Your task to perform on an android device: turn on airplane mode Image 0: 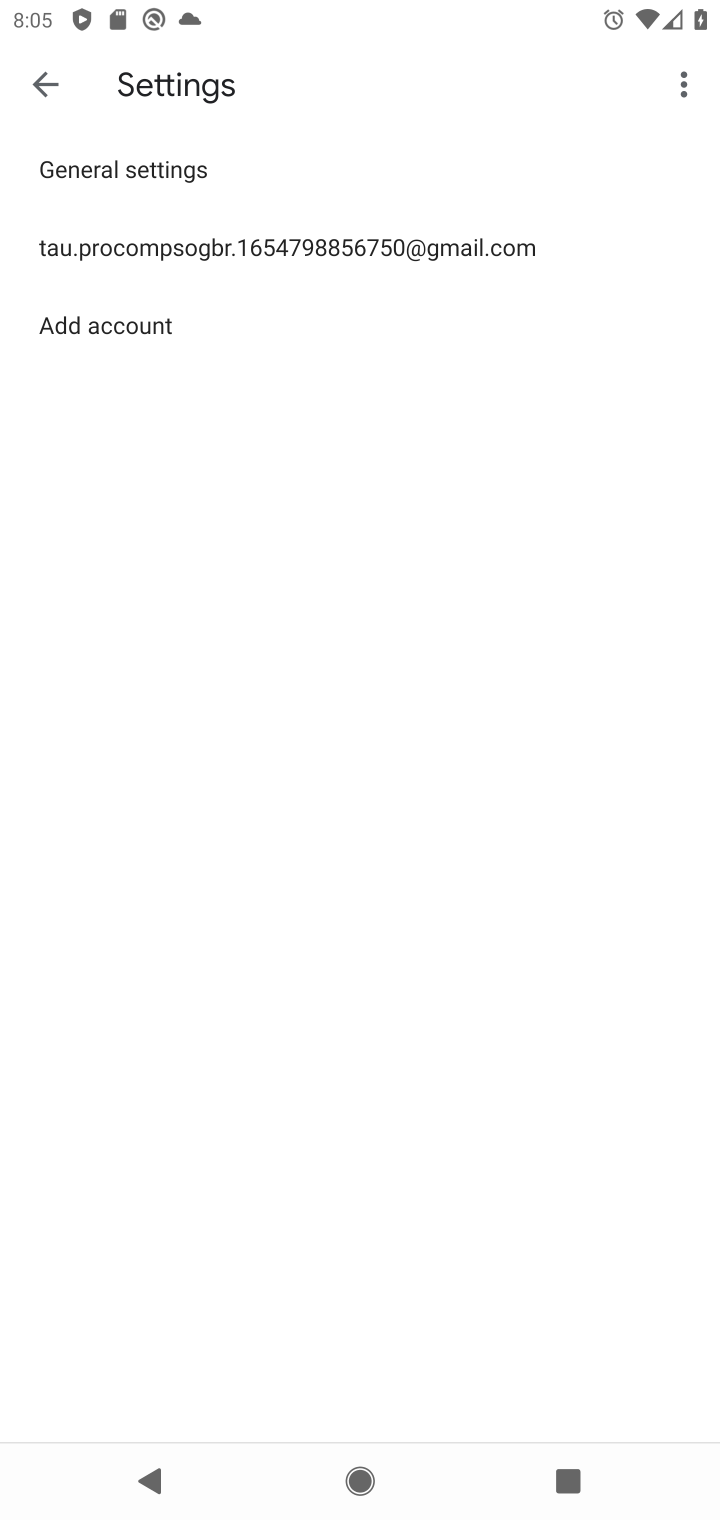
Step 0: press home button
Your task to perform on an android device: turn on airplane mode Image 1: 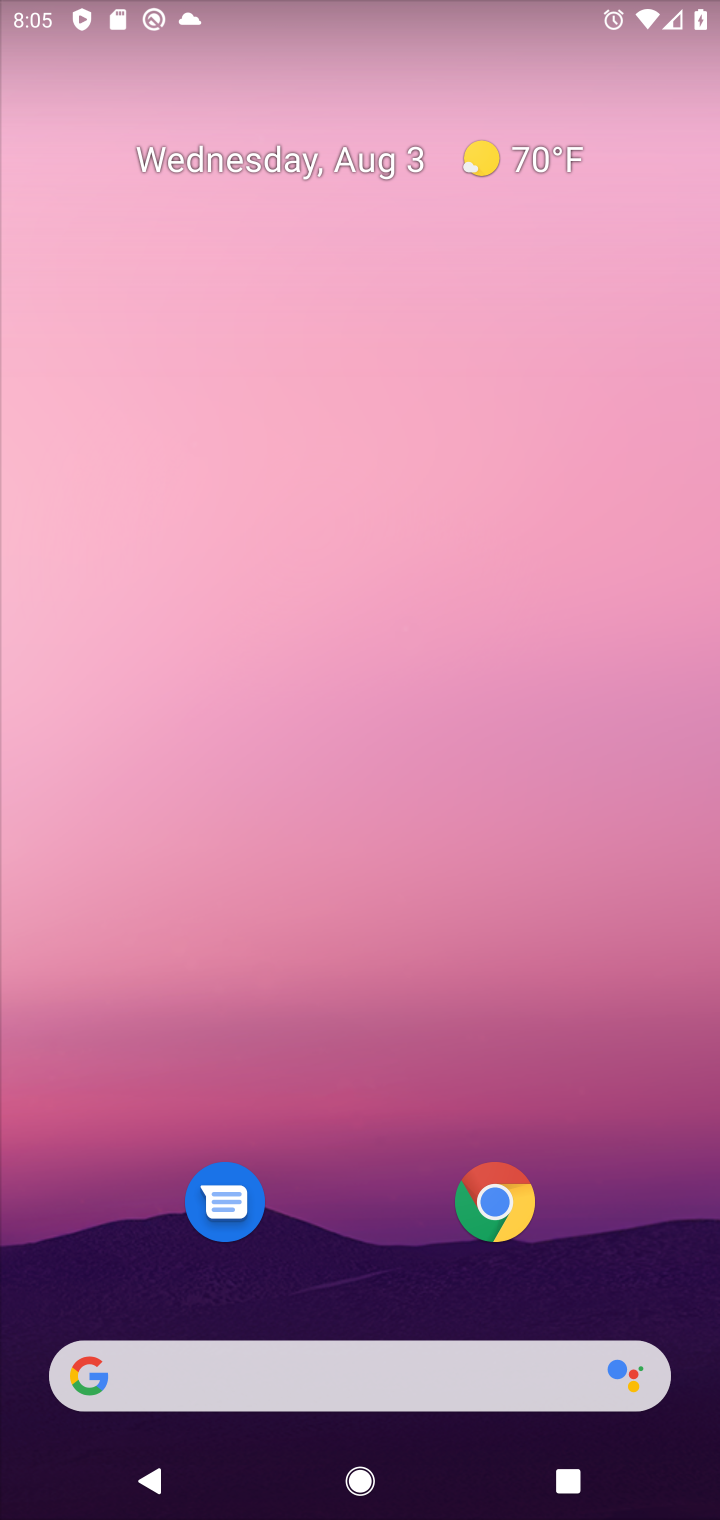
Step 1: drag from (359, 1372) to (274, 447)
Your task to perform on an android device: turn on airplane mode Image 2: 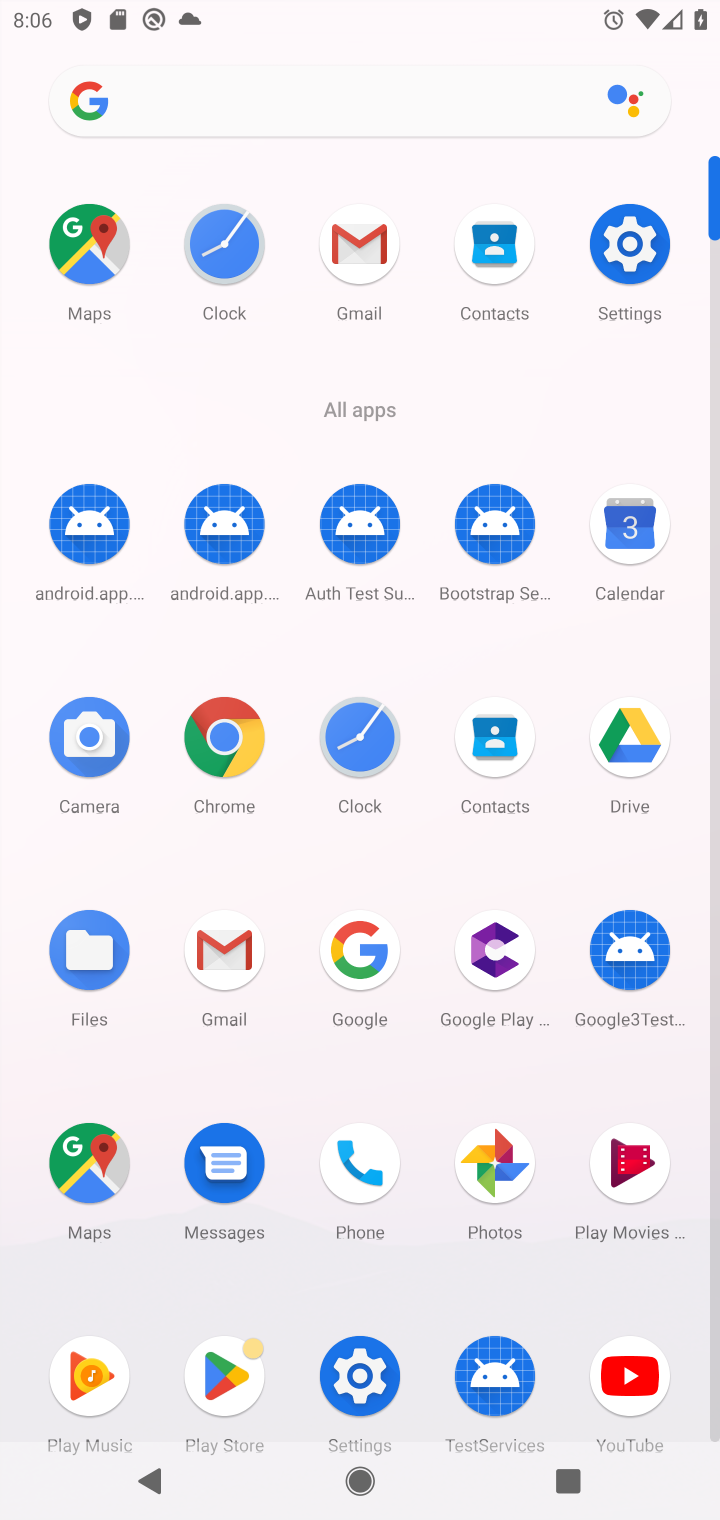
Step 2: click (359, 1383)
Your task to perform on an android device: turn on airplane mode Image 3: 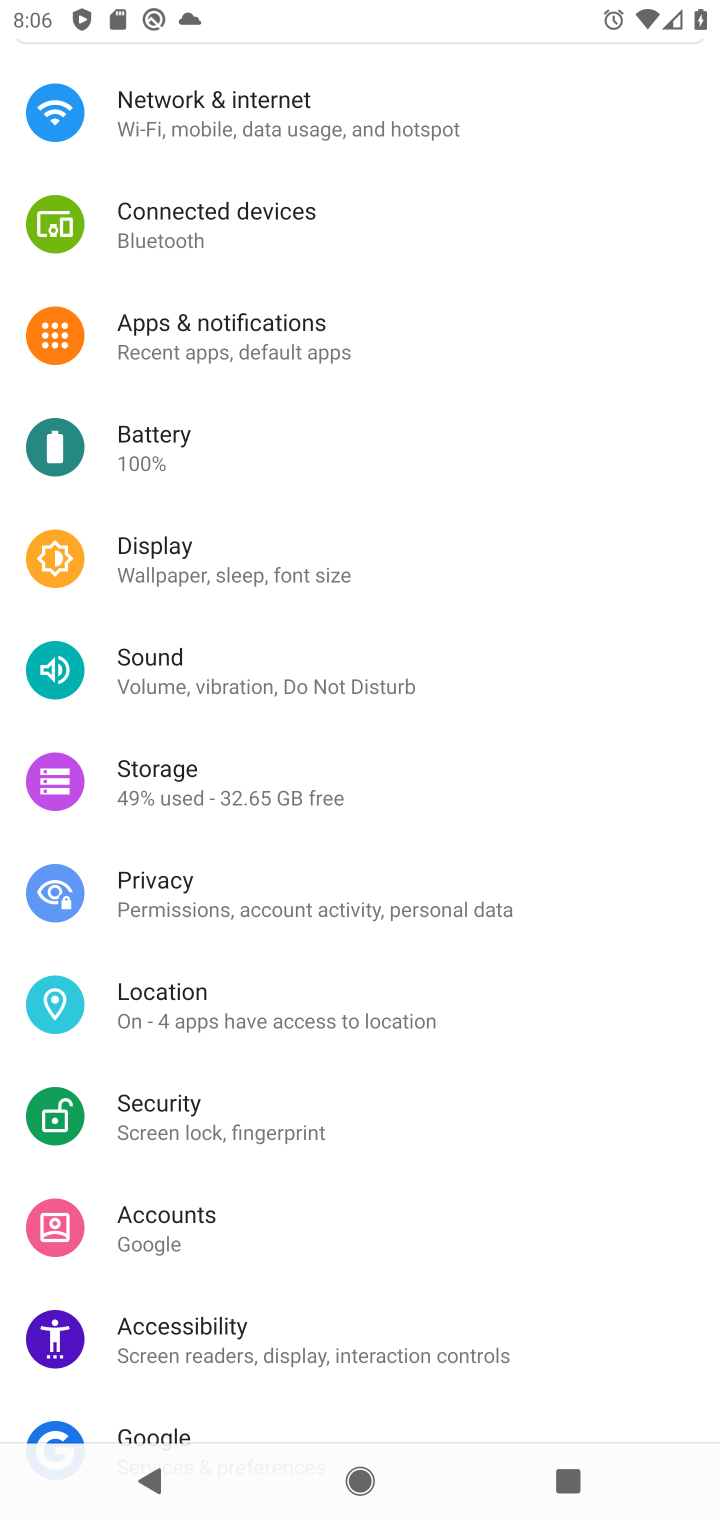
Step 3: drag from (425, 405) to (420, 661)
Your task to perform on an android device: turn on airplane mode Image 4: 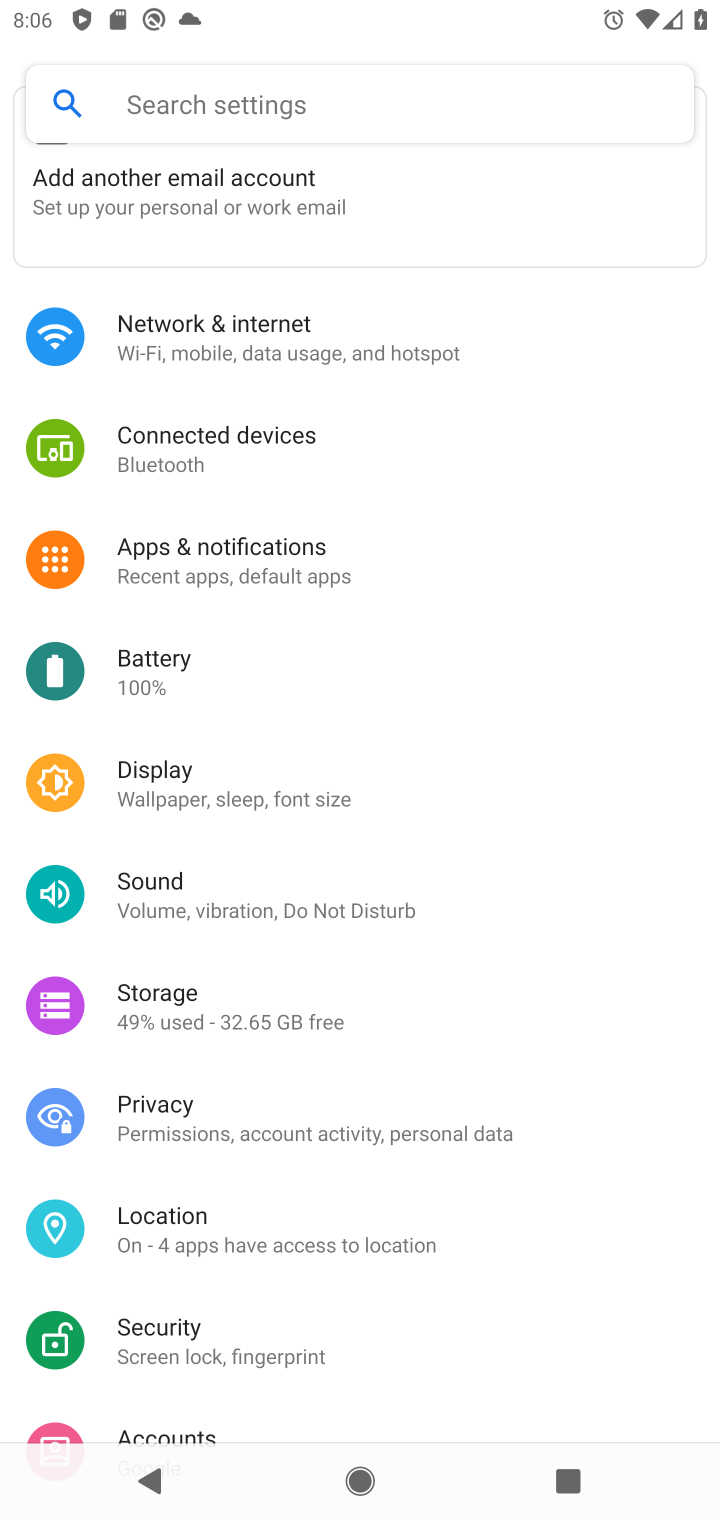
Step 4: drag from (404, 451) to (386, 742)
Your task to perform on an android device: turn on airplane mode Image 5: 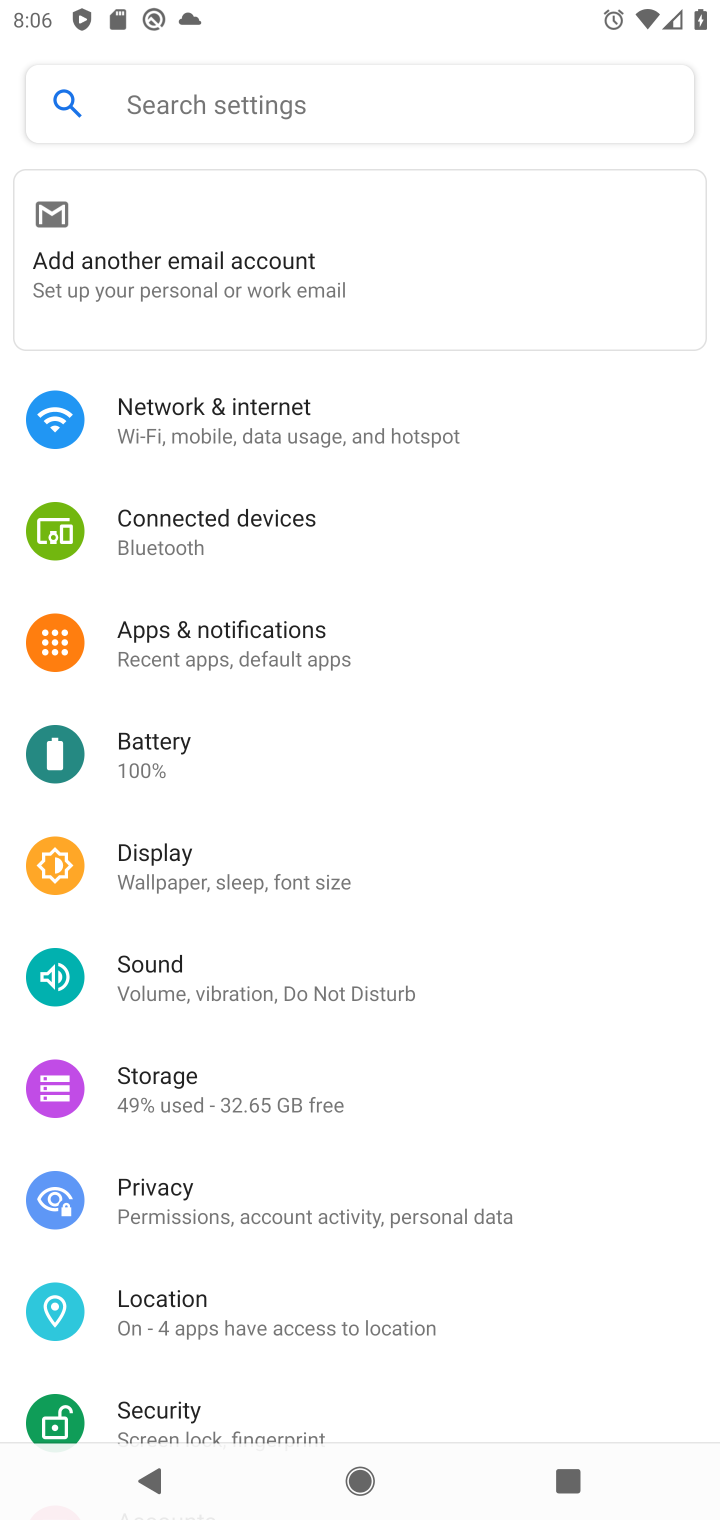
Step 5: click (217, 428)
Your task to perform on an android device: turn on airplane mode Image 6: 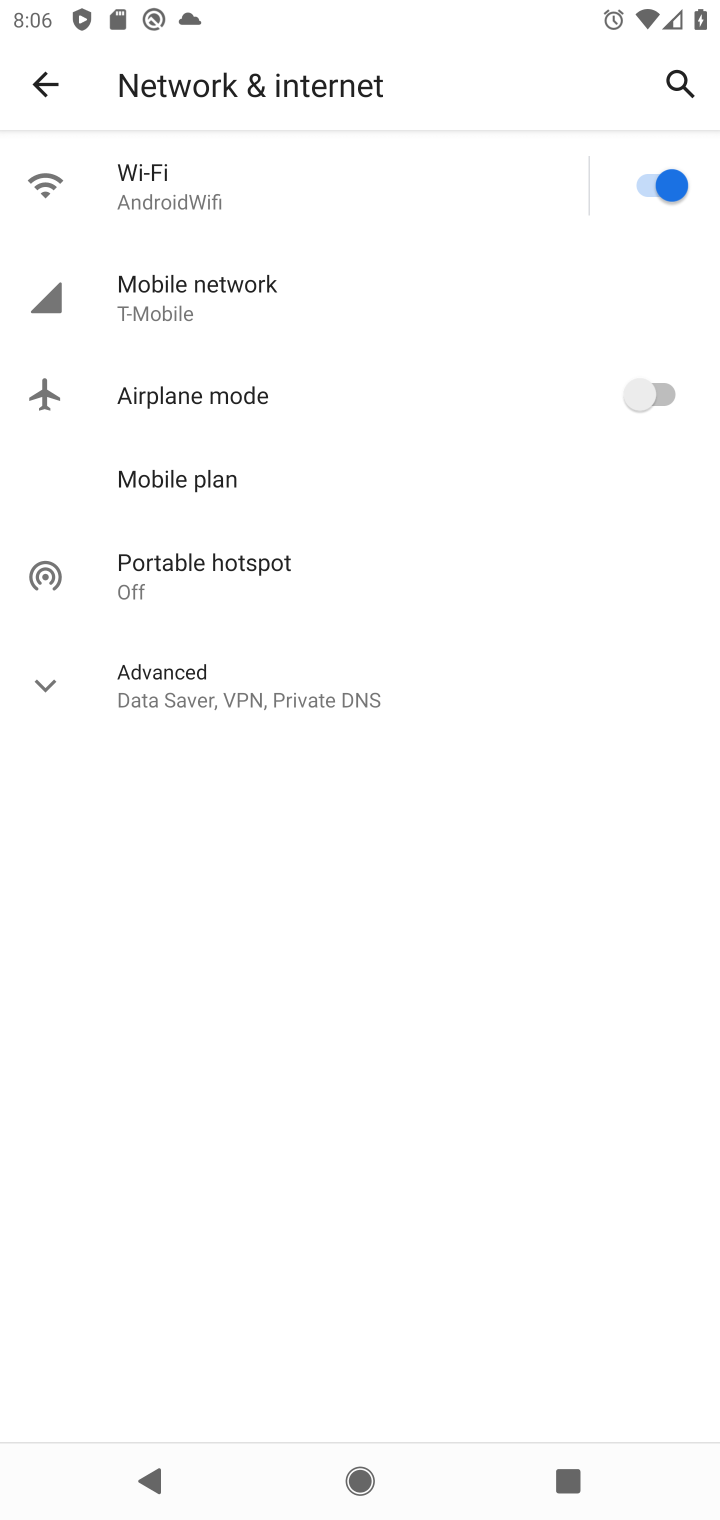
Step 6: click (648, 394)
Your task to perform on an android device: turn on airplane mode Image 7: 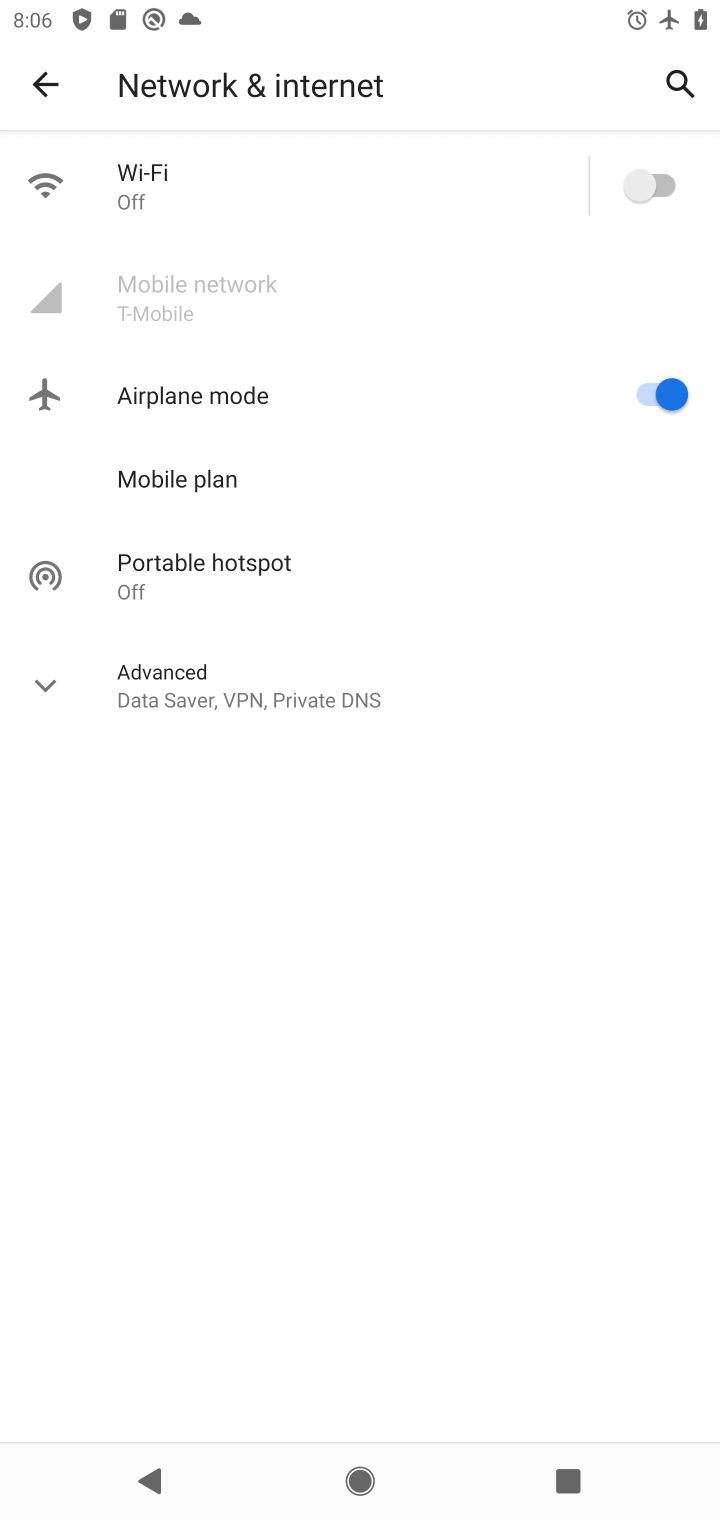
Step 7: task complete